Your task to perform on an android device: change your default location settings in chrome Image 0: 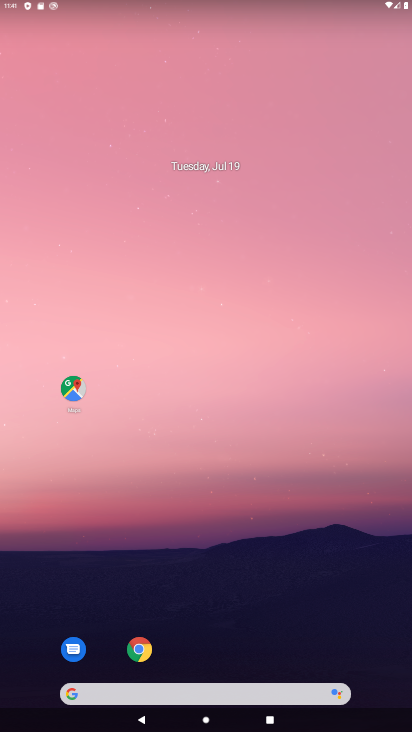
Step 0: press home button
Your task to perform on an android device: change your default location settings in chrome Image 1: 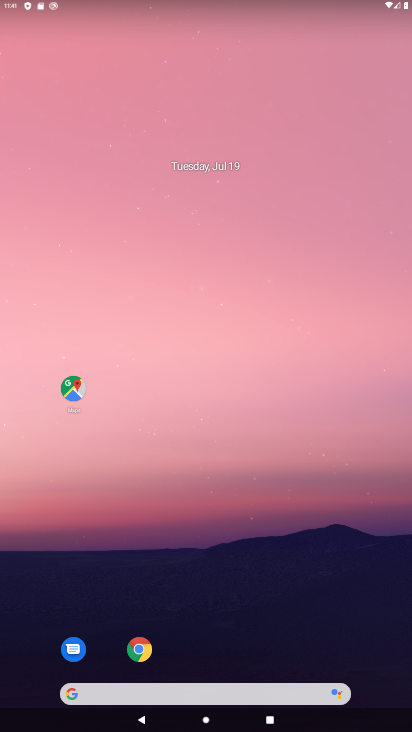
Step 1: drag from (241, 202) to (187, 3)
Your task to perform on an android device: change your default location settings in chrome Image 2: 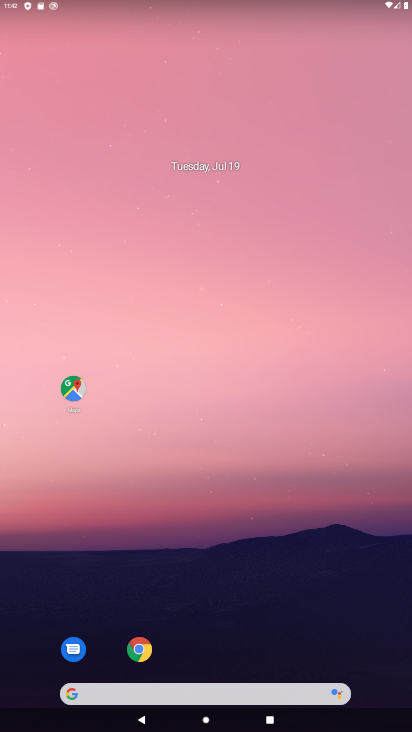
Step 2: click (138, 655)
Your task to perform on an android device: change your default location settings in chrome Image 3: 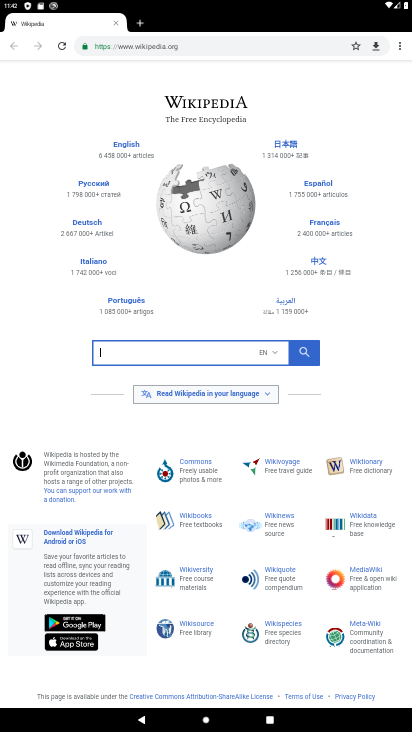
Step 3: click (402, 40)
Your task to perform on an android device: change your default location settings in chrome Image 4: 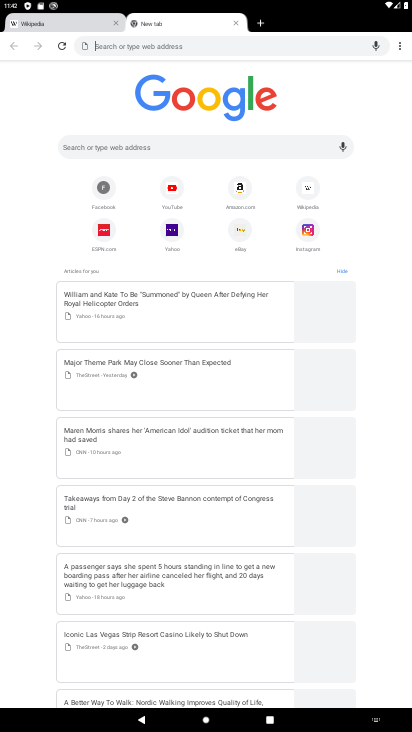
Step 4: drag from (404, 50) to (317, 213)
Your task to perform on an android device: change your default location settings in chrome Image 5: 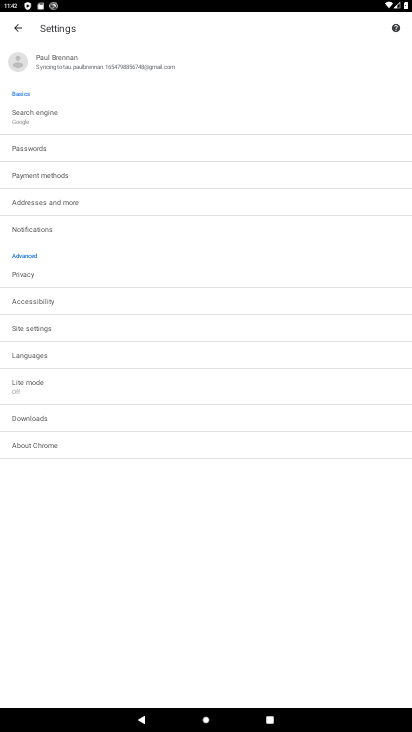
Step 5: click (28, 320)
Your task to perform on an android device: change your default location settings in chrome Image 6: 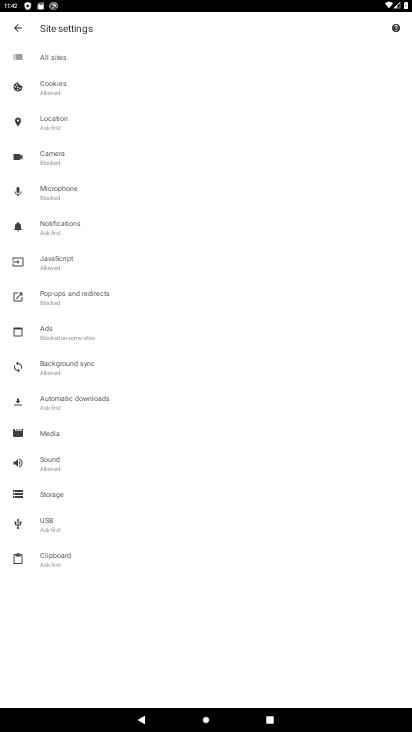
Step 6: click (62, 117)
Your task to perform on an android device: change your default location settings in chrome Image 7: 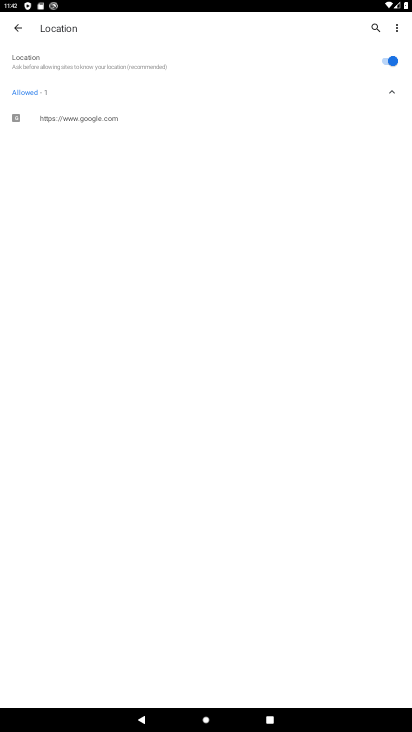
Step 7: click (389, 57)
Your task to perform on an android device: change your default location settings in chrome Image 8: 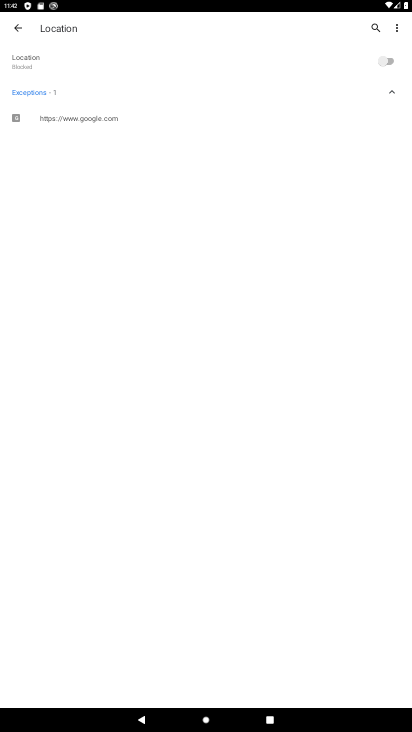
Step 8: task complete